Your task to perform on an android device: Go to wifi settings Image 0: 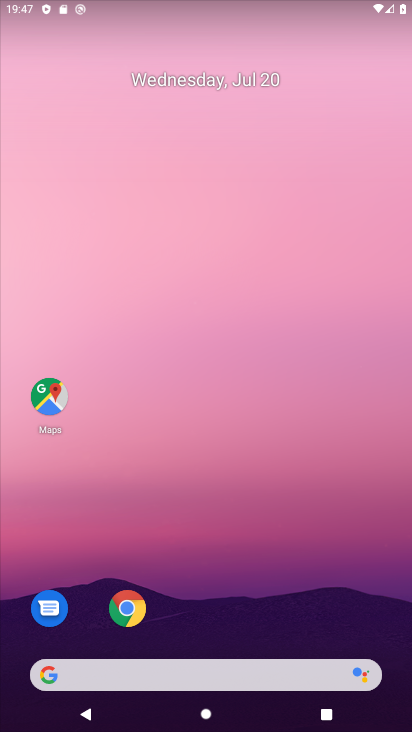
Step 0: click (319, 216)
Your task to perform on an android device: Go to wifi settings Image 1: 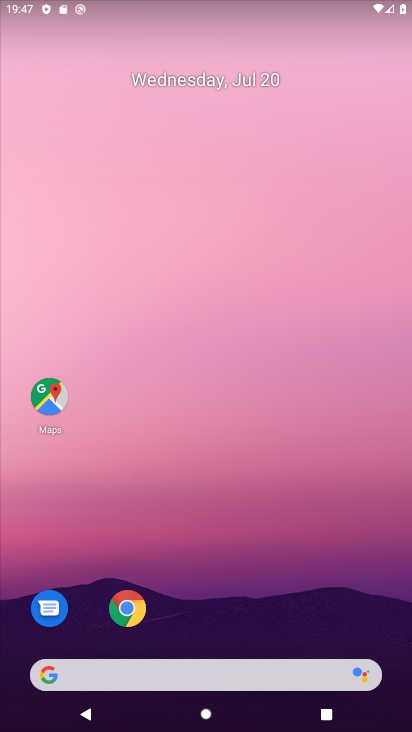
Step 1: drag from (262, 375) to (203, 46)
Your task to perform on an android device: Go to wifi settings Image 2: 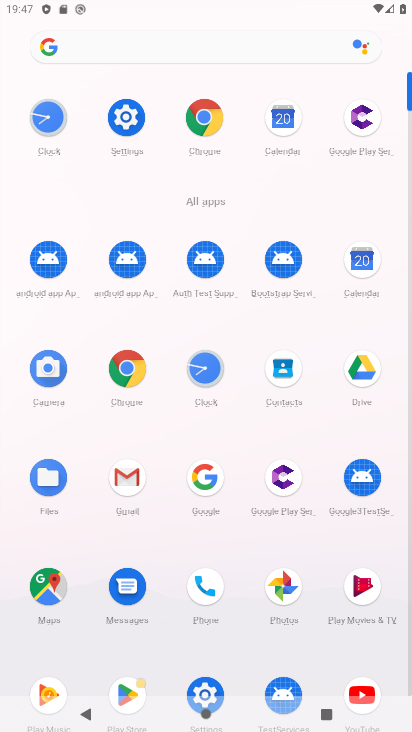
Step 2: click (121, 114)
Your task to perform on an android device: Go to wifi settings Image 3: 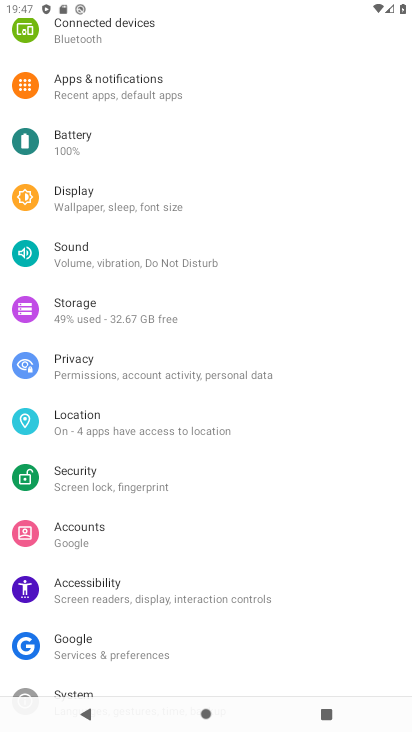
Step 3: drag from (164, 111) to (148, 574)
Your task to perform on an android device: Go to wifi settings Image 4: 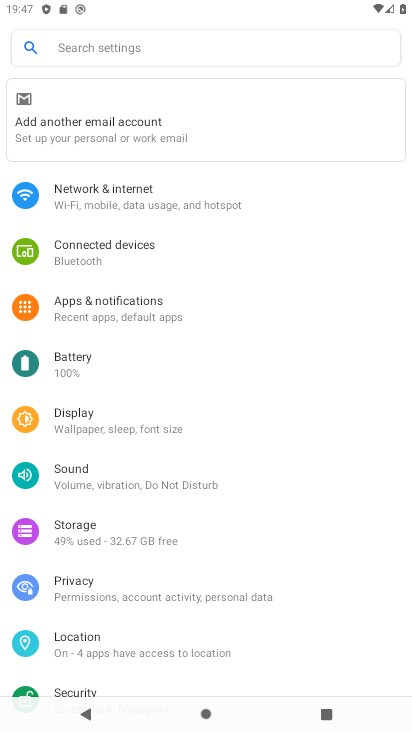
Step 4: click (104, 188)
Your task to perform on an android device: Go to wifi settings Image 5: 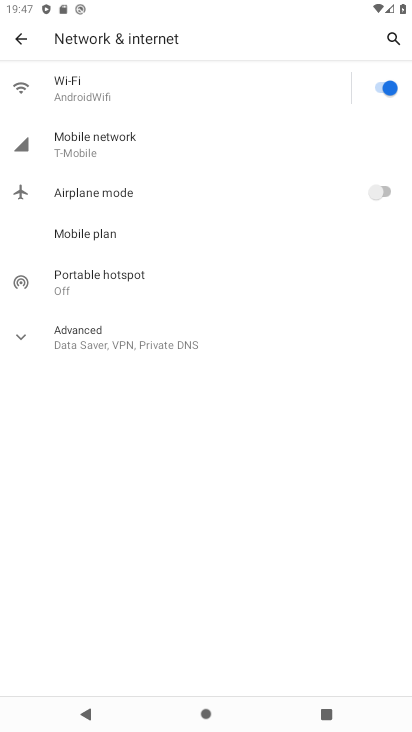
Step 5: click (221, 86)
Your task to perform on an android device: Go to wifi settings Image 6: 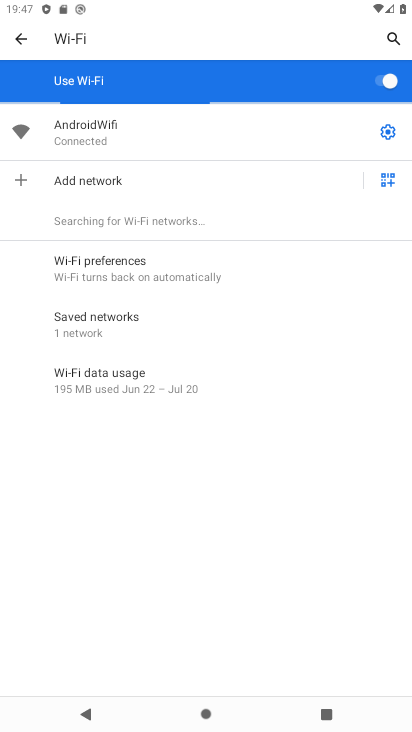
Step 6: click (386, 138)
Your task to perform on an android device: Go to wifi settings Image 7: 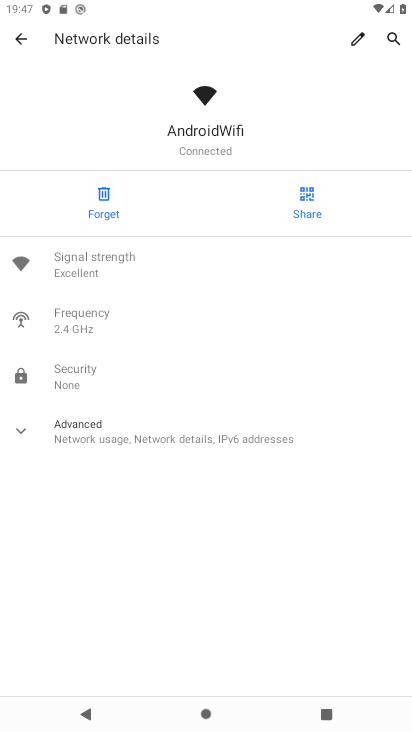
Step 7: task complete